Your task to perform on an android device: change the upload size in google photos Image 0: 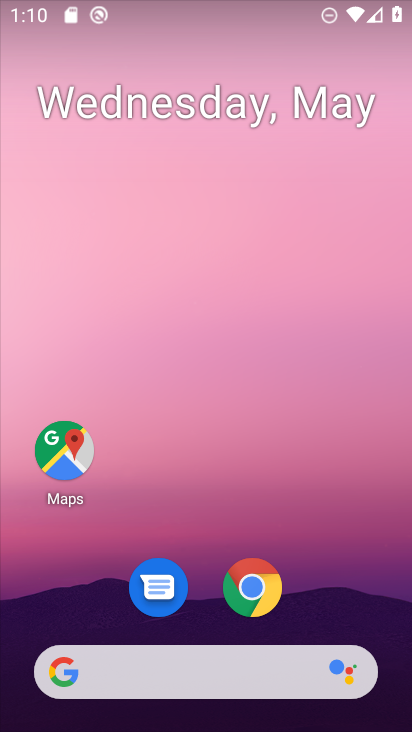
Step 0: drag from (297, 595) to (296, 129)
Your task to perform on an android device: change the upload size in google photos Image 1: 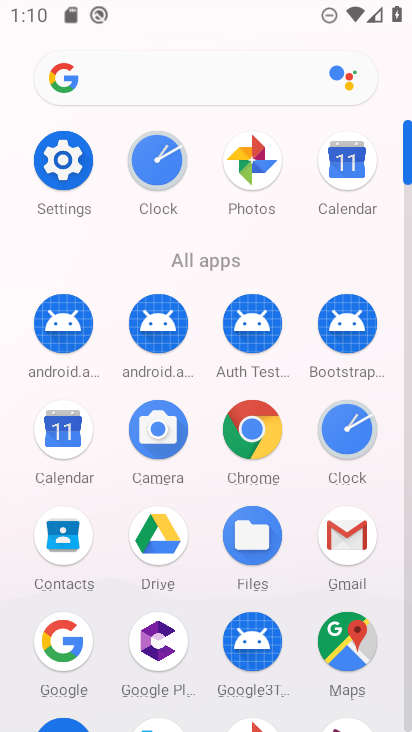
Step 1: click (245, 155)
Your task to perform on an android device: change the upload size in google photos Image 2: 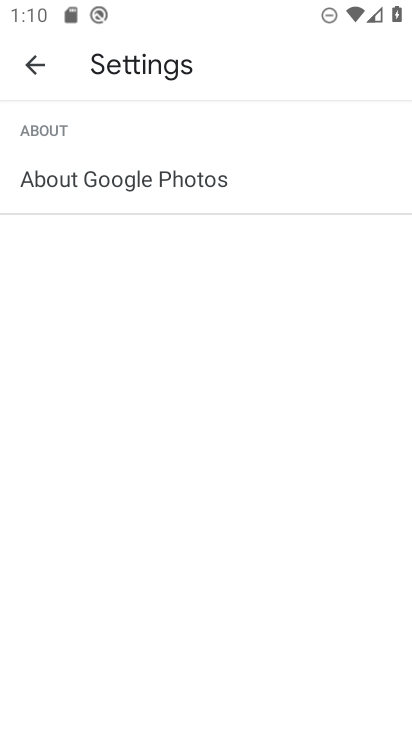
Step 2: click (20, 84)
Your task to perform on an android device: change the upload size in google photos Image 3: 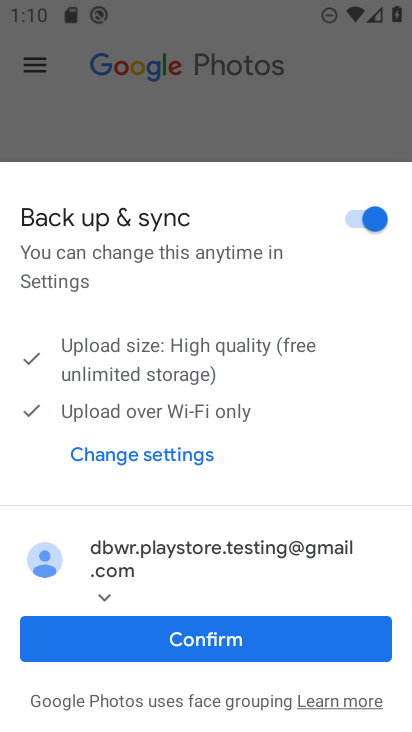
Step 3: click (245, 642)
Your task to perform on an android device: change the upload size in google photos Image 4: 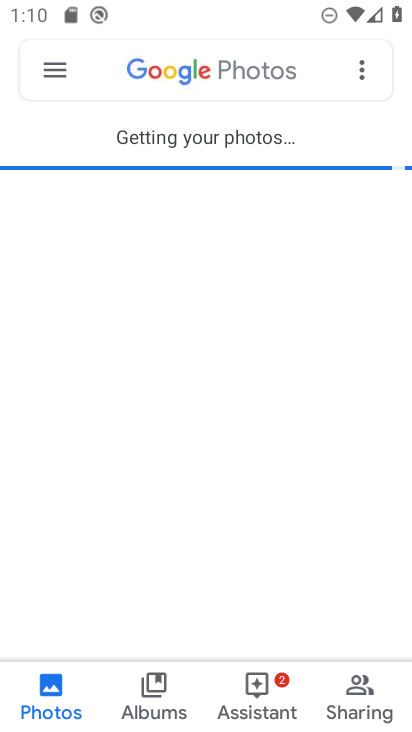
Step 4: click (68, 64)
Your task to perform on an android device: change the upload size in google photos Image 5: 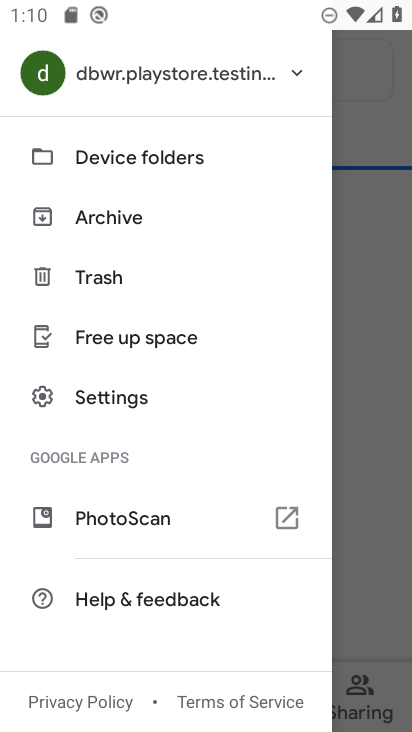
Step 5: click (130, 405)
Your task to perform on an android device: change the upload size in google photos Image 6: 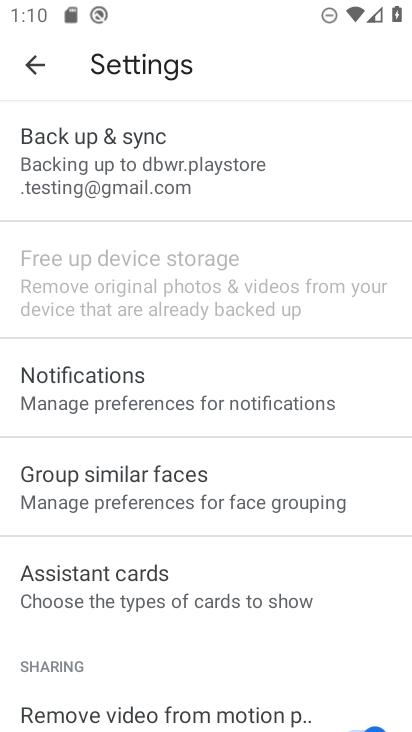
Step 6: click (135, 168)
Your task to perform on an android device: change the upload size in google photos Image 7: 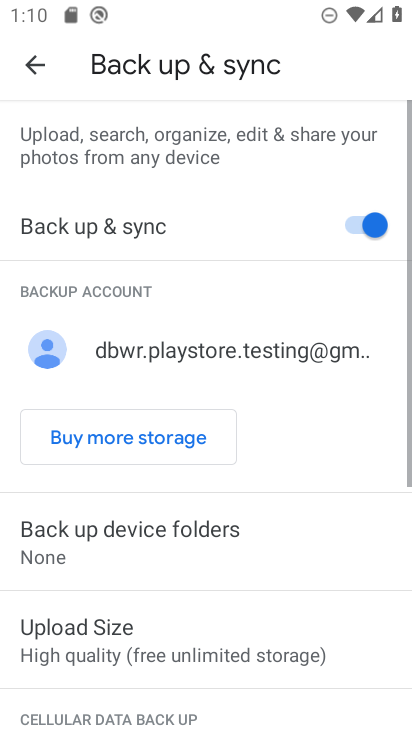
Step 7: drag from (192, 552) to (255, 331)
Your task to perform on an android device: change the upload size in google photos Image 8: 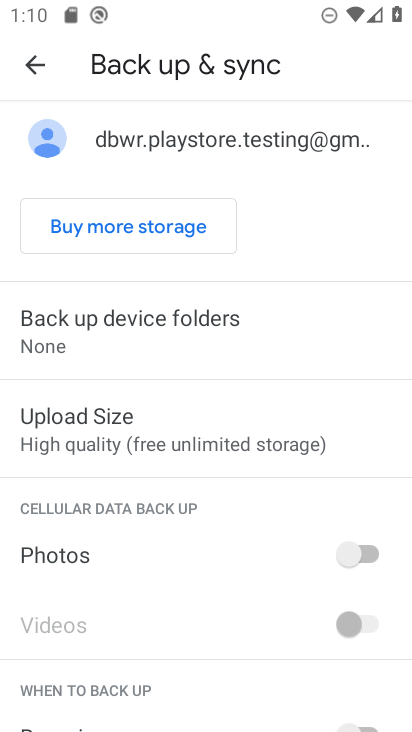
Step 8: click (200, 435)
Your task to perform on an android device: change the upload size in google photos Image 9: 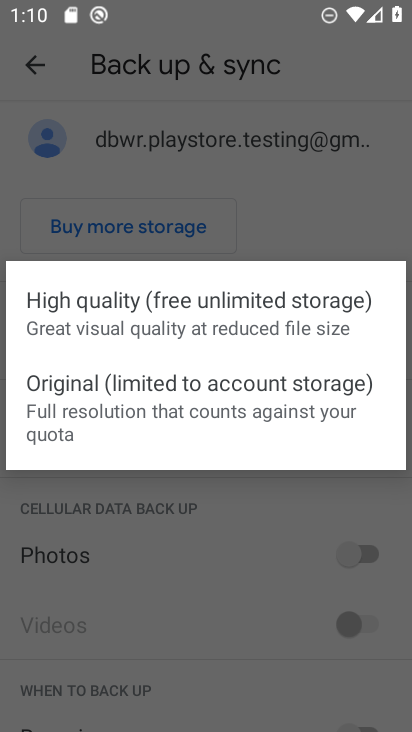
Step 9: click (200, 425)
Your task to perform on an android device: change the upload size in google photos Image 10: 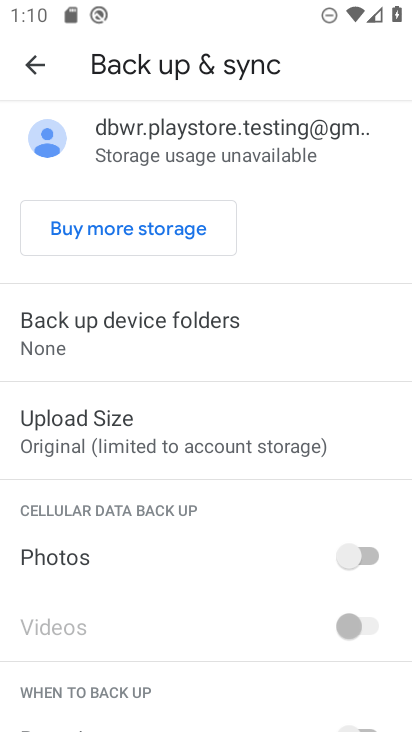
Step 10: task complete